Your task to perform on an android device: see tabs open on other devices in the chrome app Image 0: 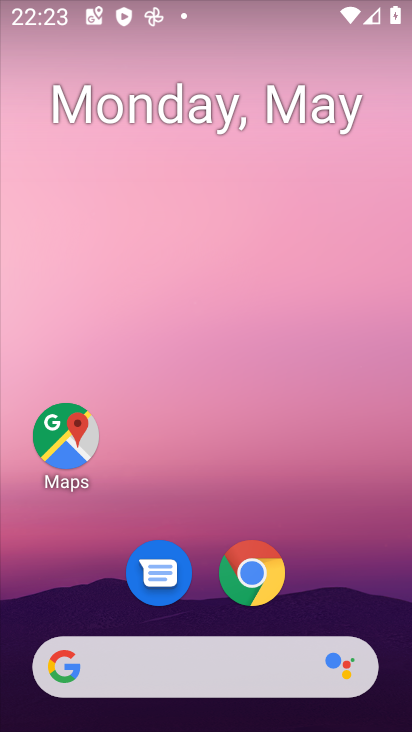
Step 0: click (251, 583)
Your task to perform on an android device: see tabs open on other devices in the chrome app Image 1: 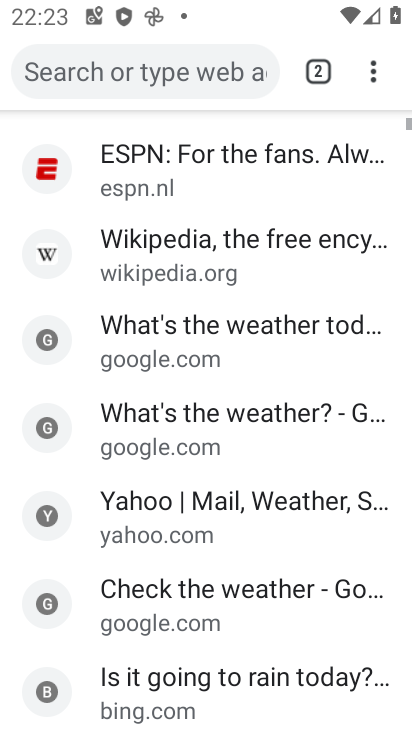
Step 1: click (374, 75)
Your task to perform on an android device: see tabs open on other devices in the chrome app Image 2: 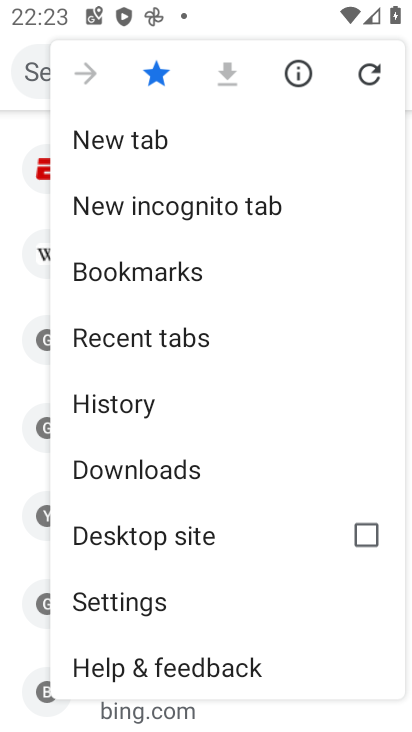
Step 2: click (219, 330)
Your task to perform on an android device: see tabs open on other devices in the chrome app Image 3: 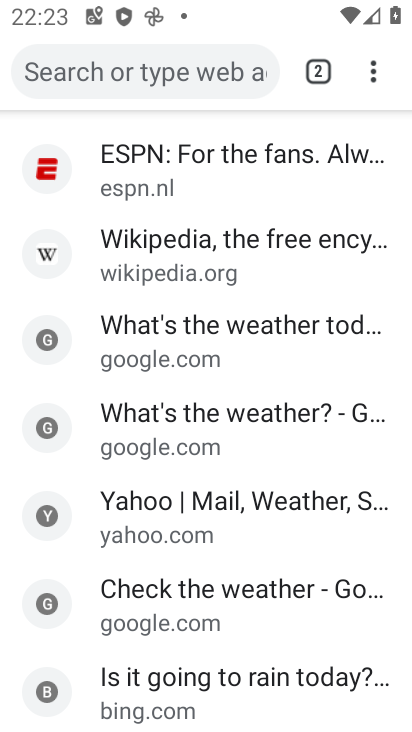
Step 3: task complete